Your task to perform on an android device: manage bookmarks in the chrome app Image 0: 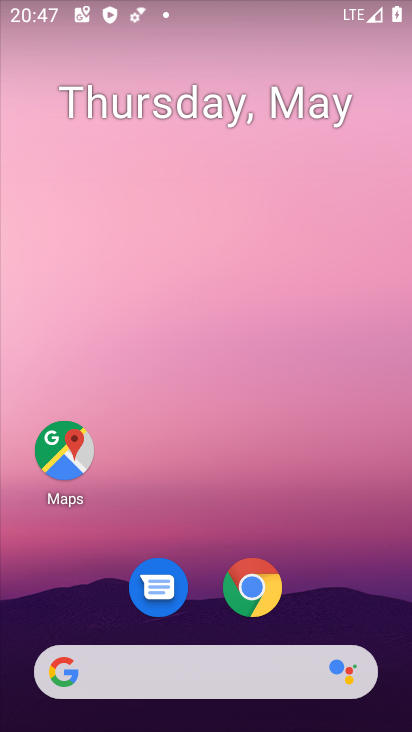
Step 0: click (255, 591)
Your task to perform on an android device: manage bookmarks in the chrome app Image 1: 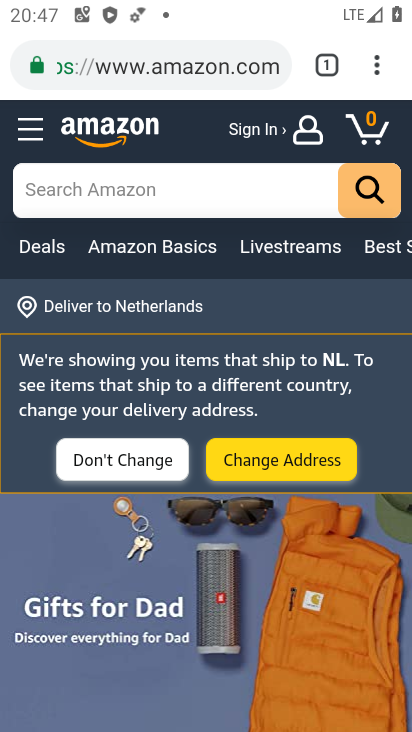
Step 1: click (374, 54)
Your task to perform on an android device: manage bookmarks in the chrome app Image 2: 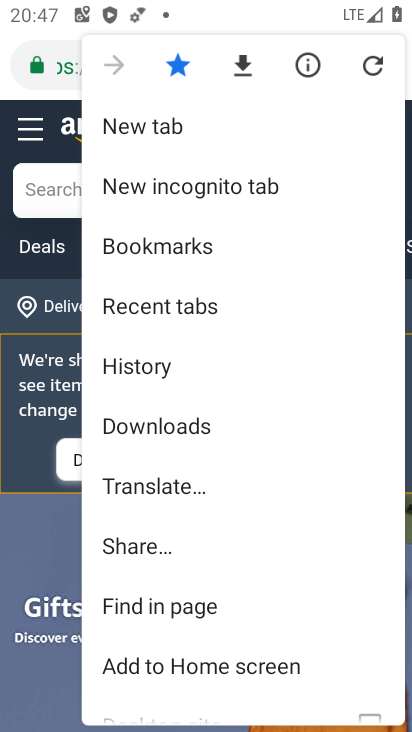
Step 2: click (186, 254)
Your task to perform on an android device: manage bookmarks in the chrome app Image 3: 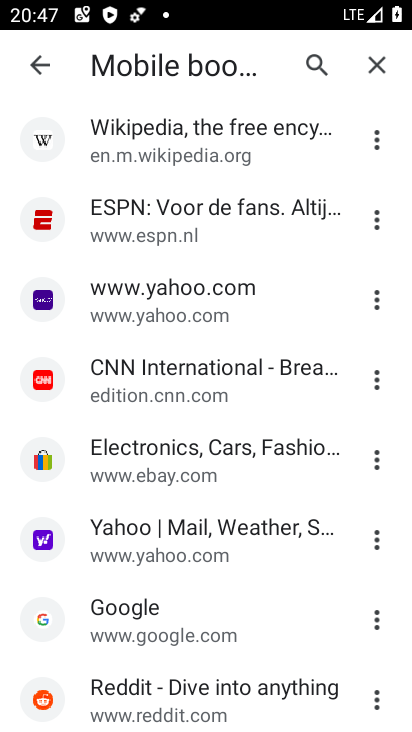
Step 3: click (373, 144)
Your task to perform on an android device: manage bookmarks in the chrome app Image 4: 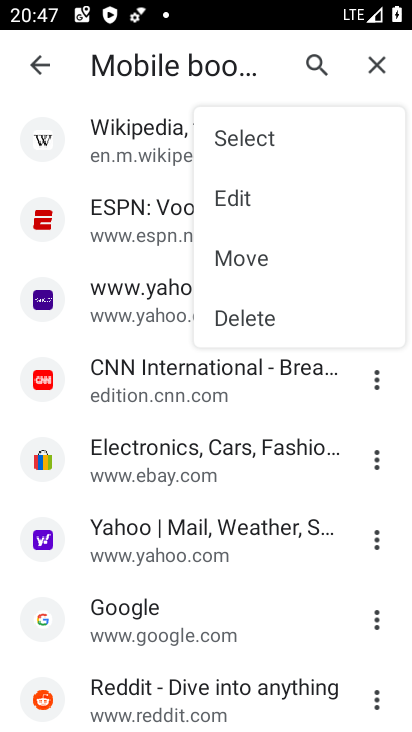
Step 4: click (259, 318)
Your task to perform on an android device: manage bookmarks in the chrome app Image 5: 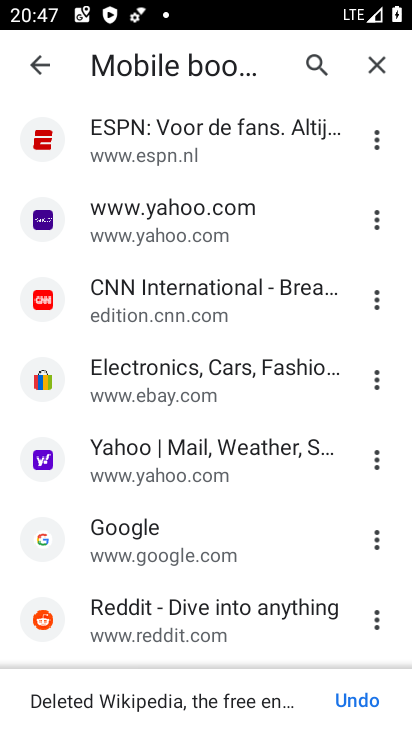
Step 5: task complete